Your task to perform on an android device: turn off data saver in the chrome app Image 0: 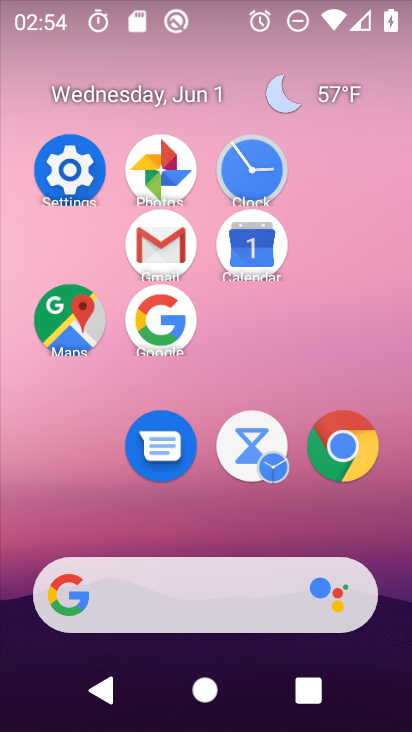
Step 0: click (362, 456)
Your task to perform on an android device: turn off data saver in the chrome app Image 1: 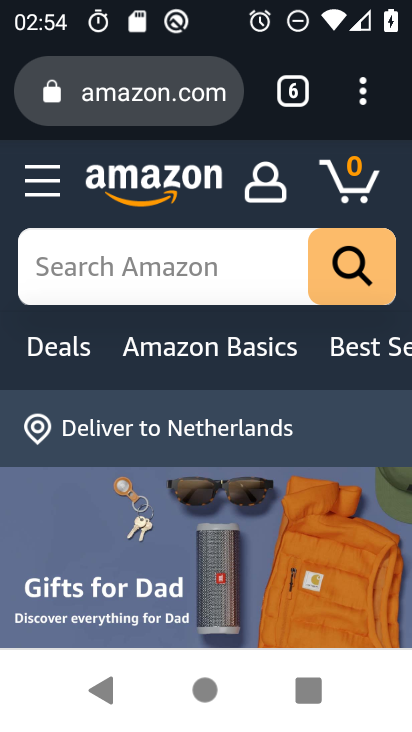
Step 1: click (363, 91)
Your task to perform on an android device: turn off data saver in the chrome app Image 2: 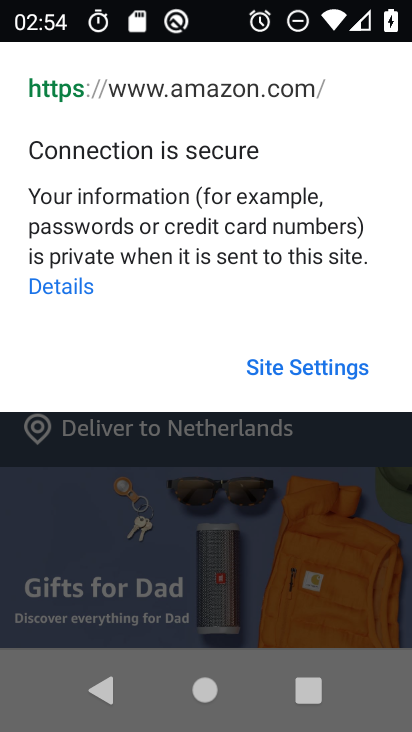
Step 2: click (296, 368)
Your task to perform on an android device: turn off data saver in the chrome app Image 3: 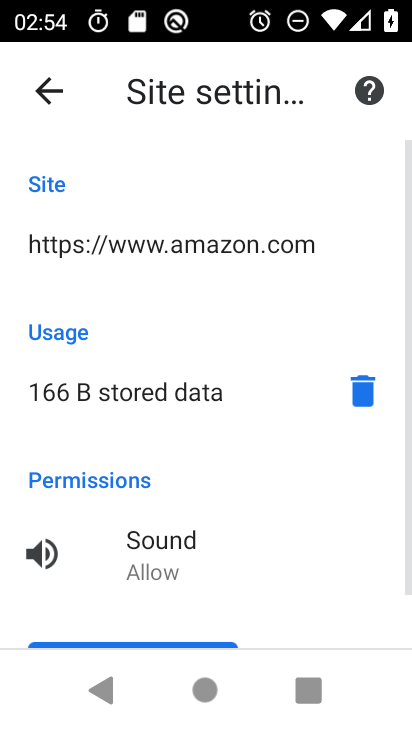
Step 3: click (50, 104)
Your task to perform on an android device: turn off data saver in the chrome app Image 4: 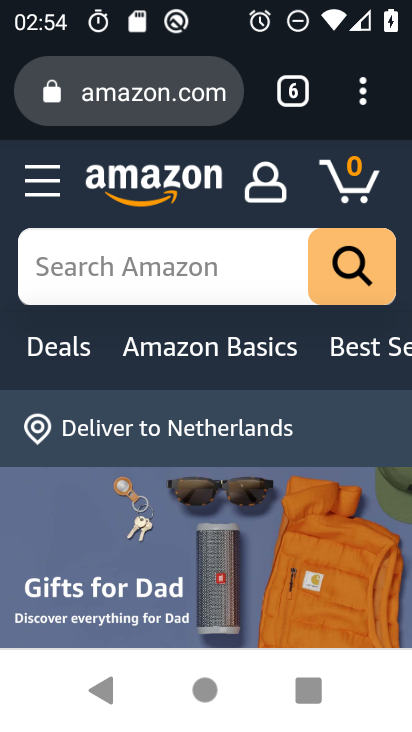
Step 4: click (366, 91)
Your task to perform on an android device: turn off data saver in the chrome app Image 5: 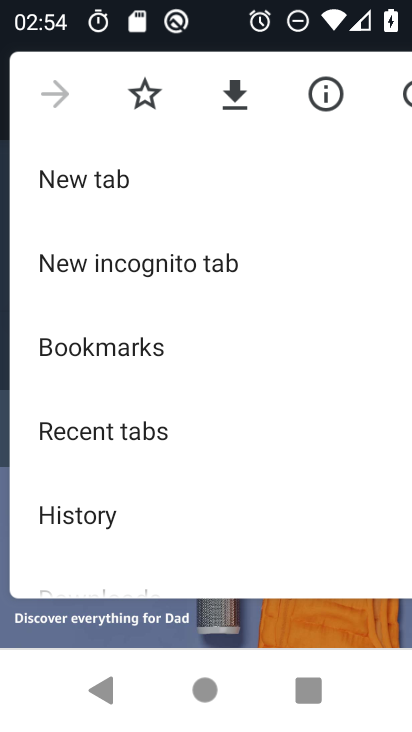
Step 5: drag from (231, 485) to (268, 107)
Your task to perform on an android device: turn off data saver in the chrome app Image 6: 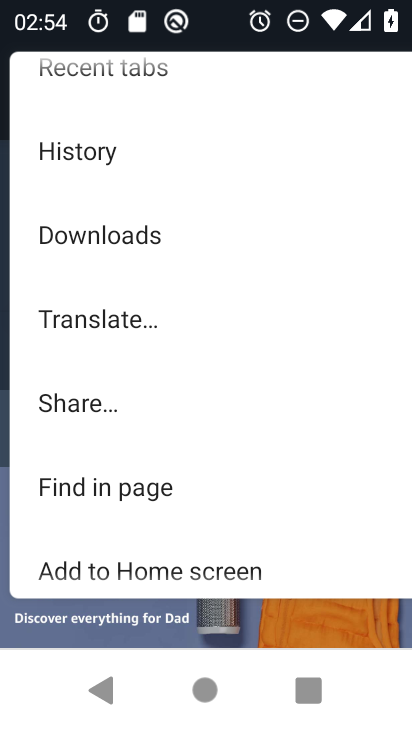
Step 6: drag from (219, 463) to (281, 88)
Your task to perform on an android device: turn off data saver in the chrome app Image 7: 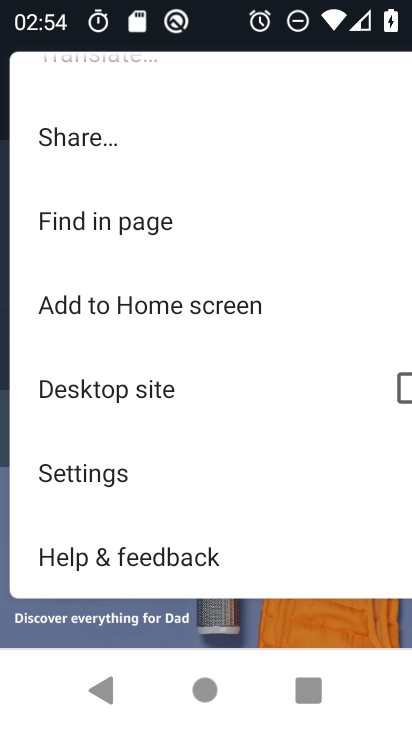
Step 7: click (172, 480)
Your task to perform on an android device: turn off data saver in the chrome app Image 8: 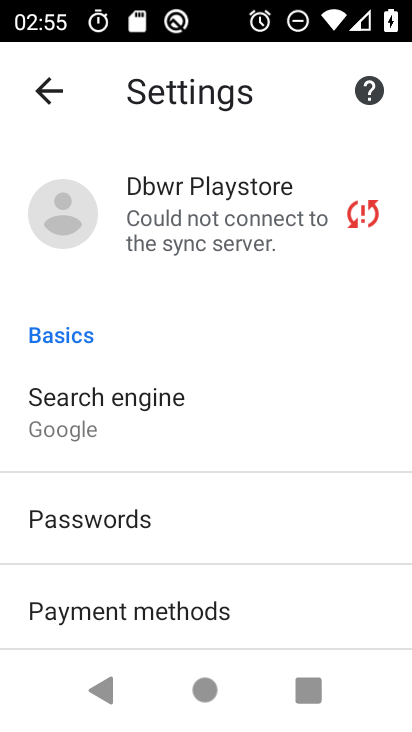
Step 8: drag from (235, 612) to (254, 155)
Your task to perform on an android device: turn off data saver in the chrome app Image 9: 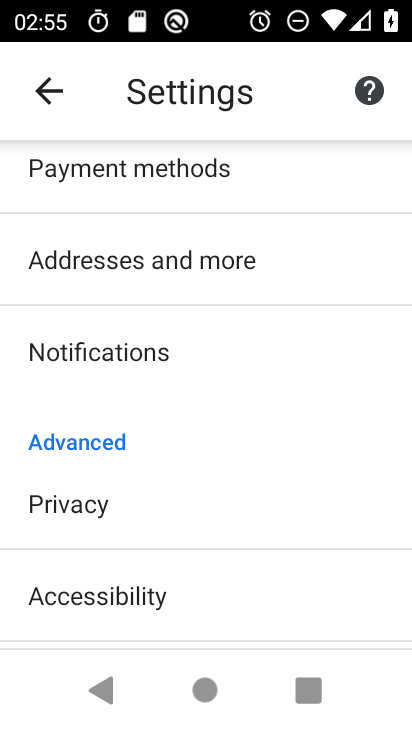
Step 9: drag from (260, 496) to (274, 130)
Your task to perform on an android device: turn off data saver in the chrome app Image 10: 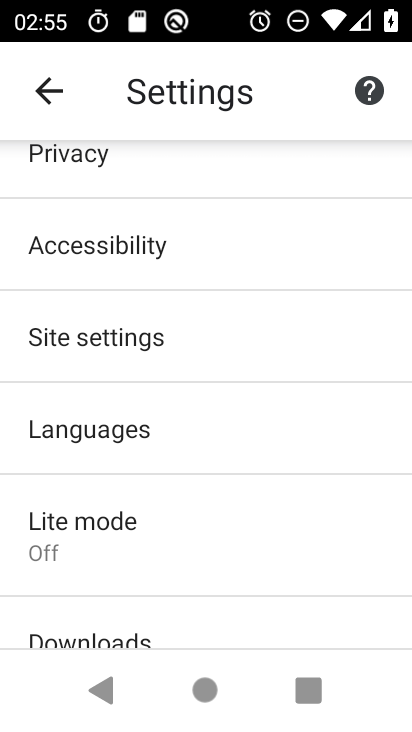
Step 10: drag from (205, 545) to (195, 183)
Your task to perform on an android device: turn off data saver in the chrome app Image 11: 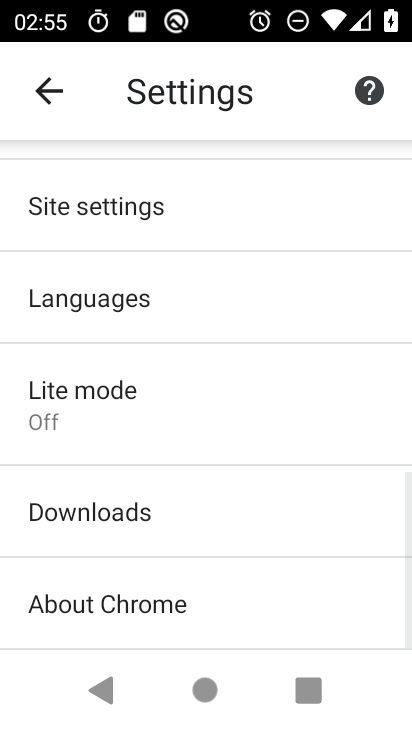
Step 11: click (184, 401)
Your task to perform on an android device: turn off data saver in the chrome app Image 12: 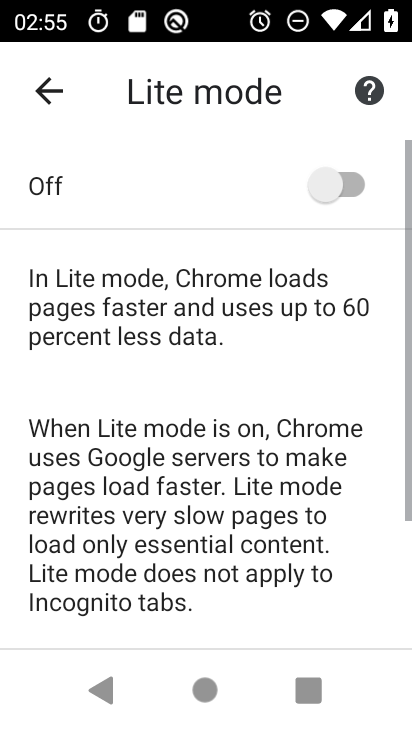
Step 12: task complete